Your task to perform on an android device: Show me the alarms in the clock app Image 0: 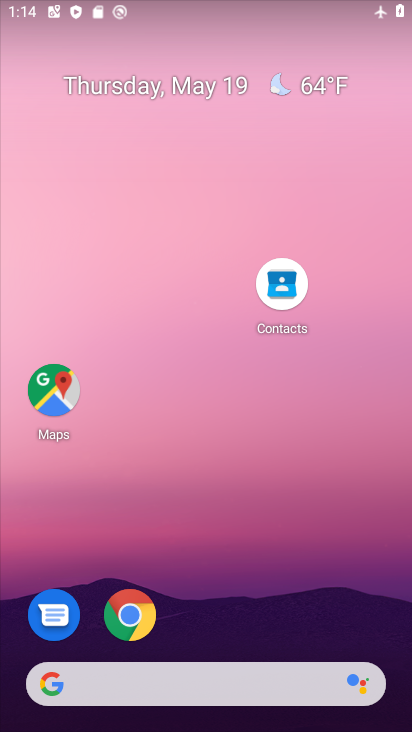
Step 0: drag from (300, 651) to (412, 393)
Your task to perform on an android device: Show me the alarms in the clock app Image 1: 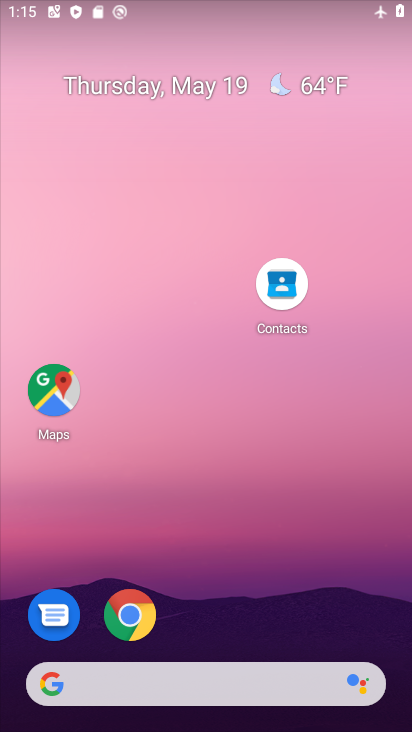
Step 1: drag from (275, 579) to (399, 229)
Your task to perform on an android device: Show me the alarms in the clock app Image 2: 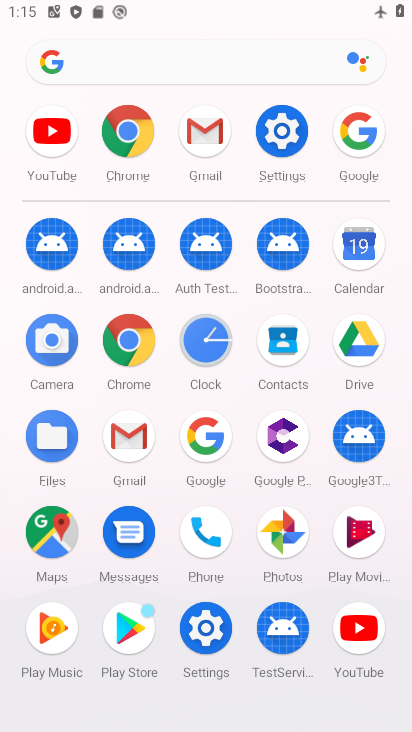
Step 2: click (221, 354)
Your task to perform on an android device: Show me the alarms in the clock app Image 3: 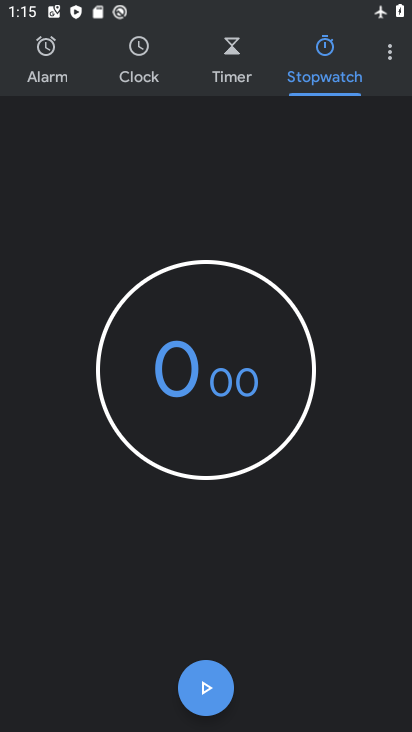
Step 3: click (57, 57)
Your task to perform on an android device: Show me the alarms in the clock app Image 4: 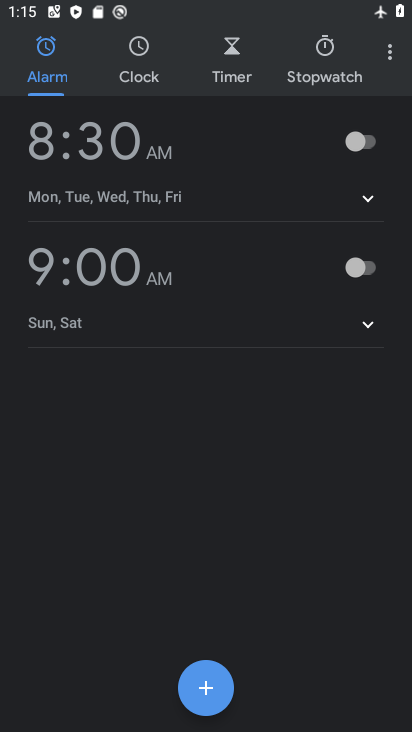
Step 4: task complete